Your task to perform on an android device: Set the phone to "Do not disturb". Image 0: 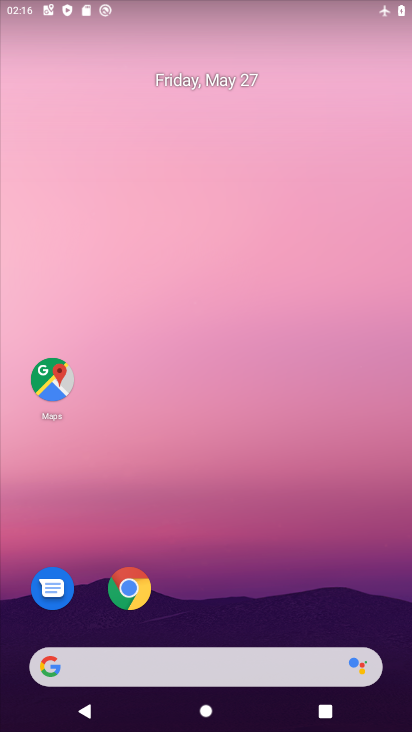
Step 0: drag from (383, 616) to (309, 68)
Your task to perform on an android device: Set the phone to "Do not disturb". Image 1: 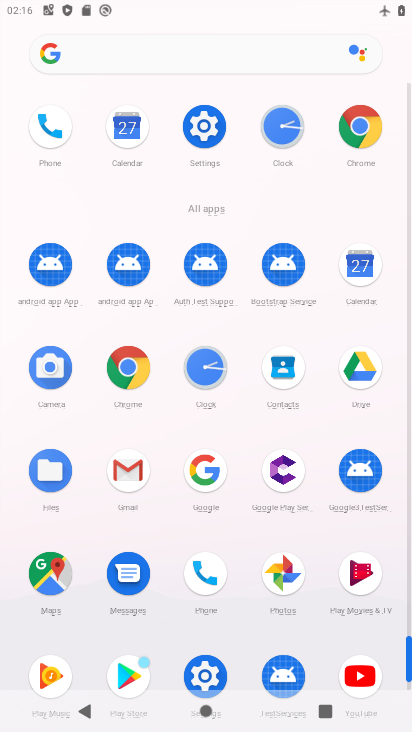
Step 1: click (201, 668)
Your task to perform on an android device: Set the phone to "Do not disturb". Image 2: 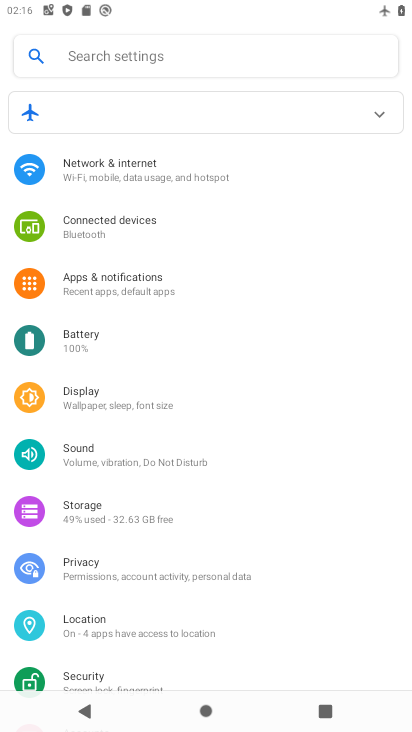
Step 2: click (122, 456)
Your task to perform on an android device: Set the phone to "Do not disturb". Image 3: 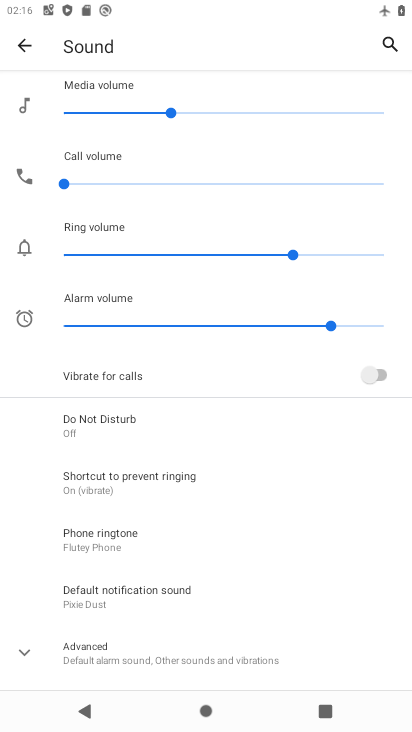
Step 3: click (92, 426)
Your task to perform on an android device: Set the phone to "Do not disturb". Image 4: 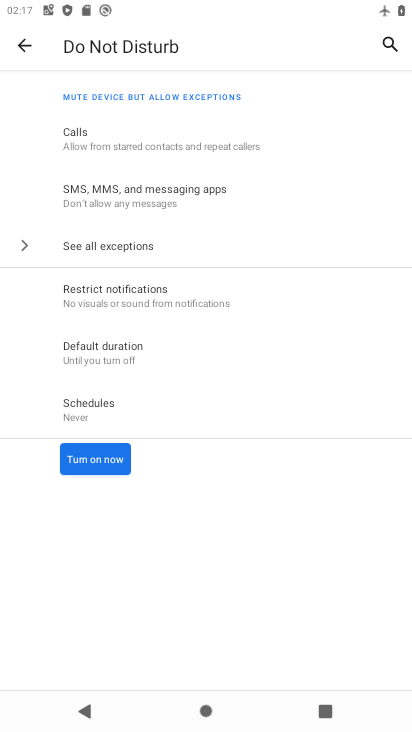
Step 4: click (90, 452)
Your task to perform on an android device: Set the phone to "Do not disturb". Image 5: 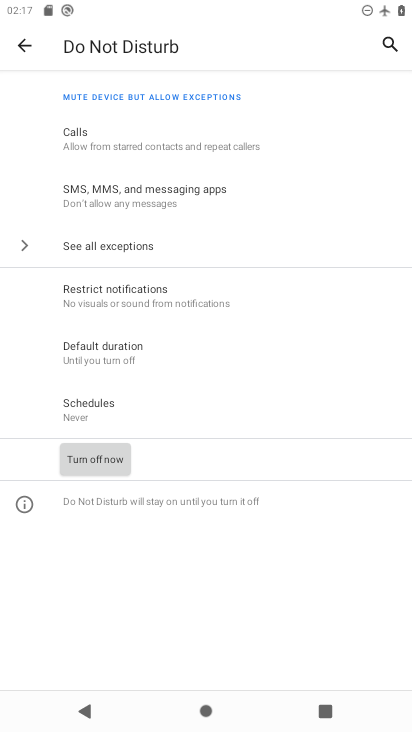
Step 5: task complete